Your task to perform on an android device: Search for hotels in Seattle Image 0: 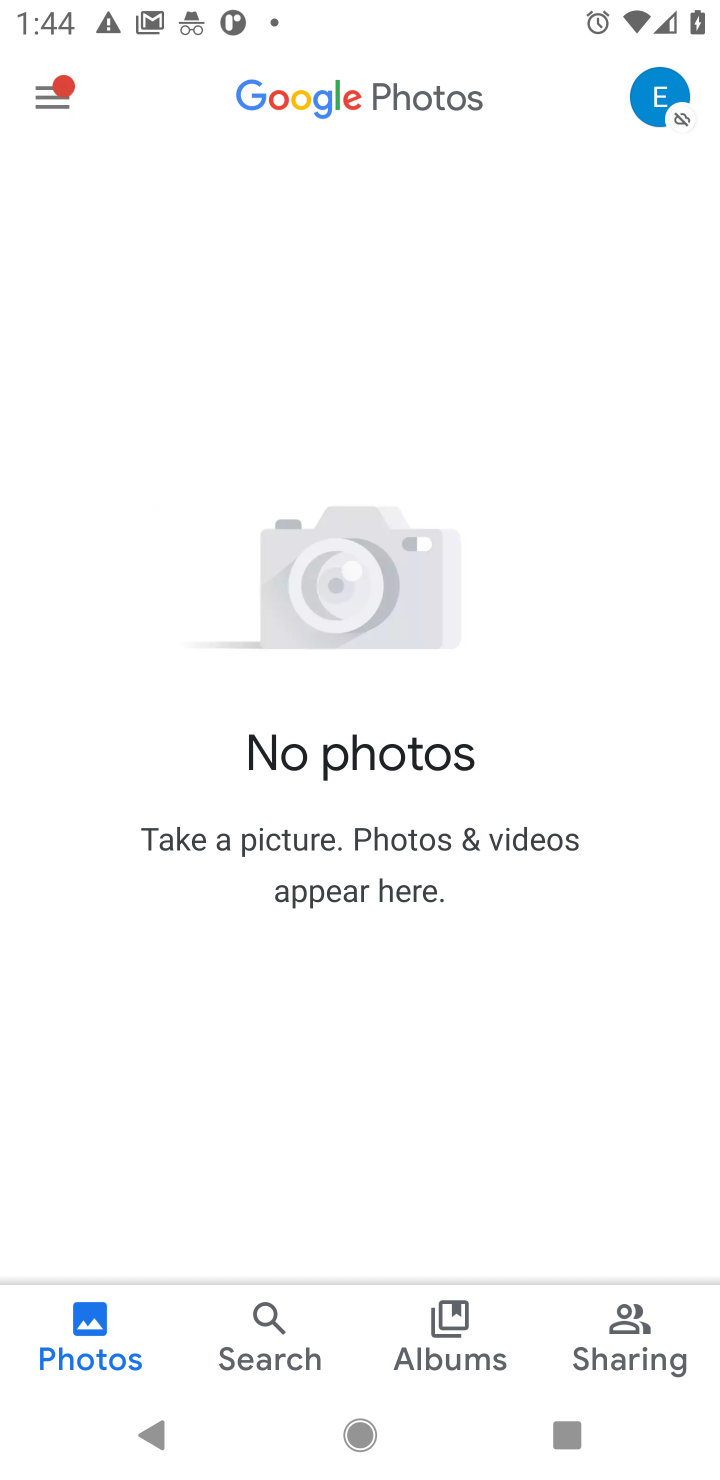
Step 0: press home button
Your task to perform on an android device: Search for hotels in Seattle Image 1: 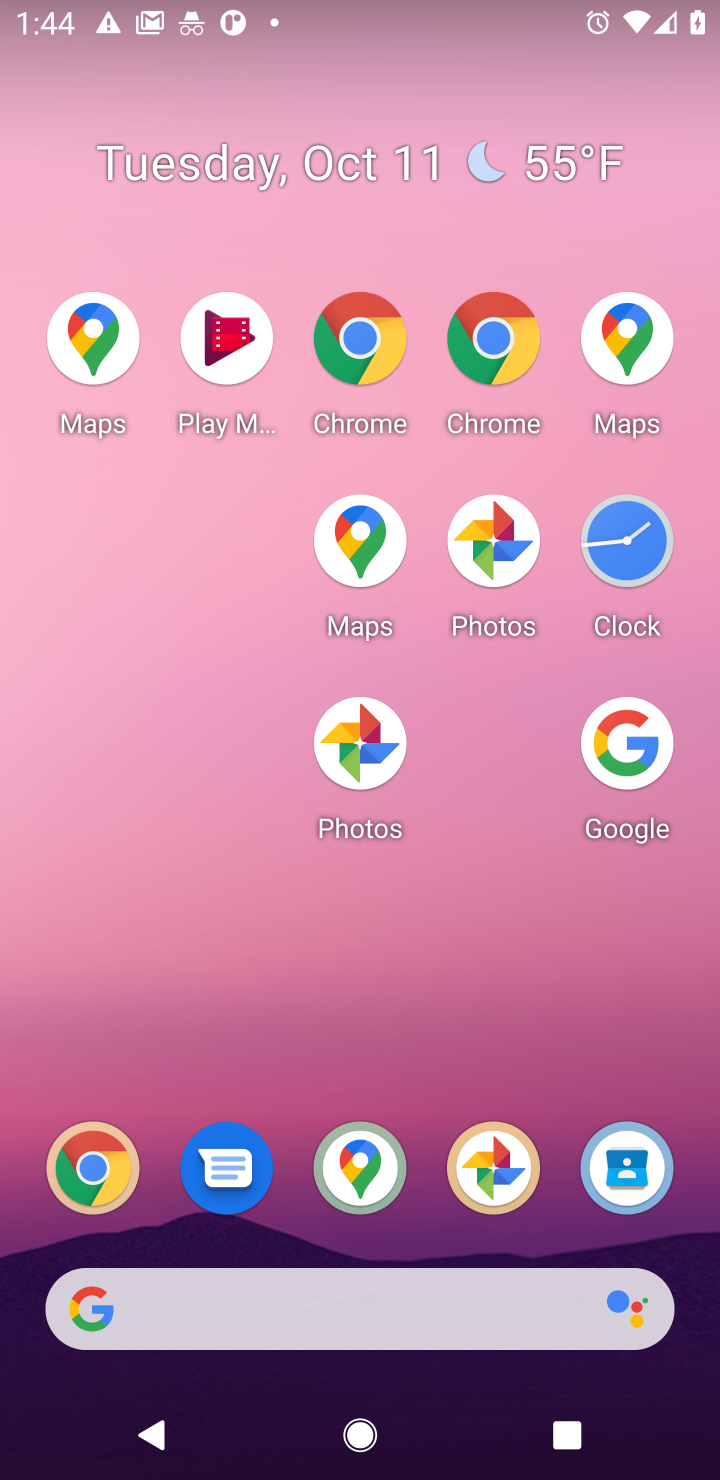
Step 1: drag from (404, 1308) to (469, 311)
Your task to perform on an android device: Search for hotels in Seattle Image 2: 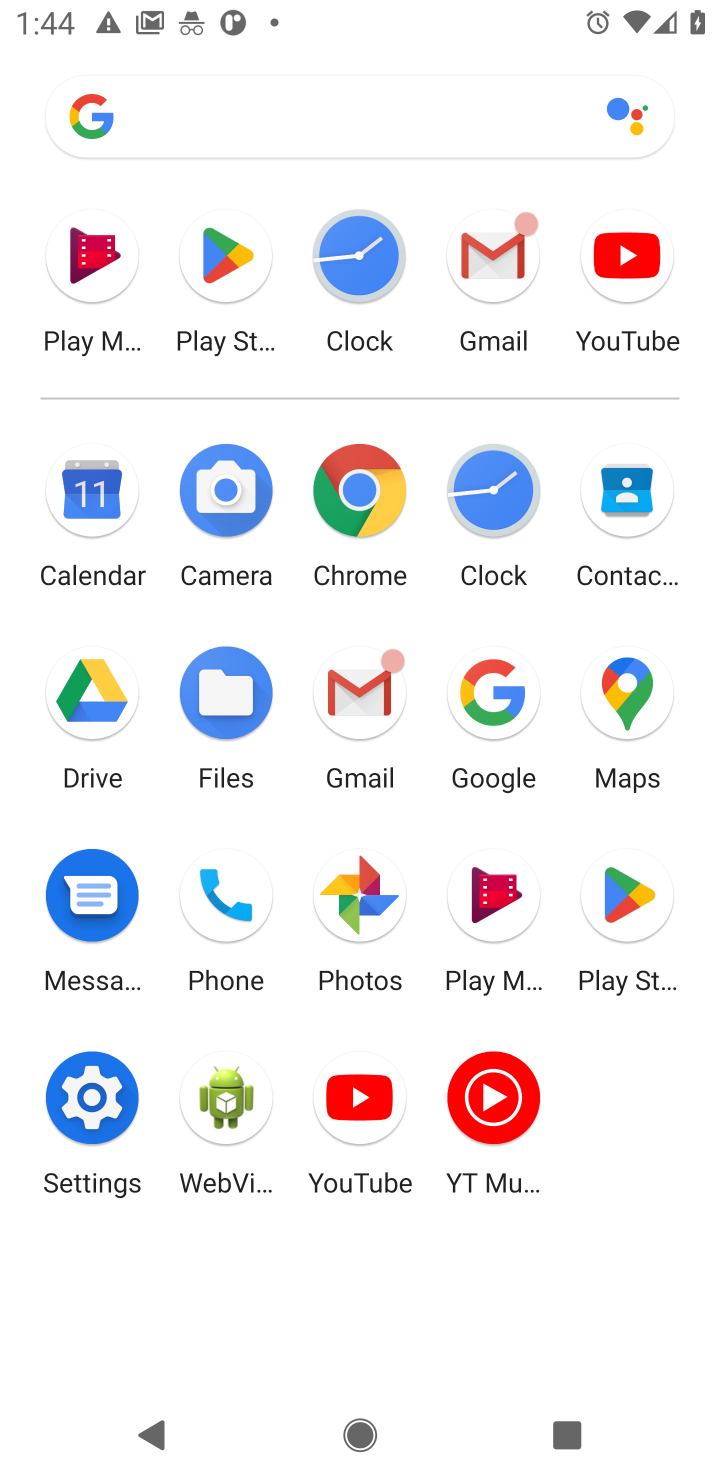
Step 2: click (509, 717)
Your task to perform on an android device: Search for hotels in Seattle Image 3: 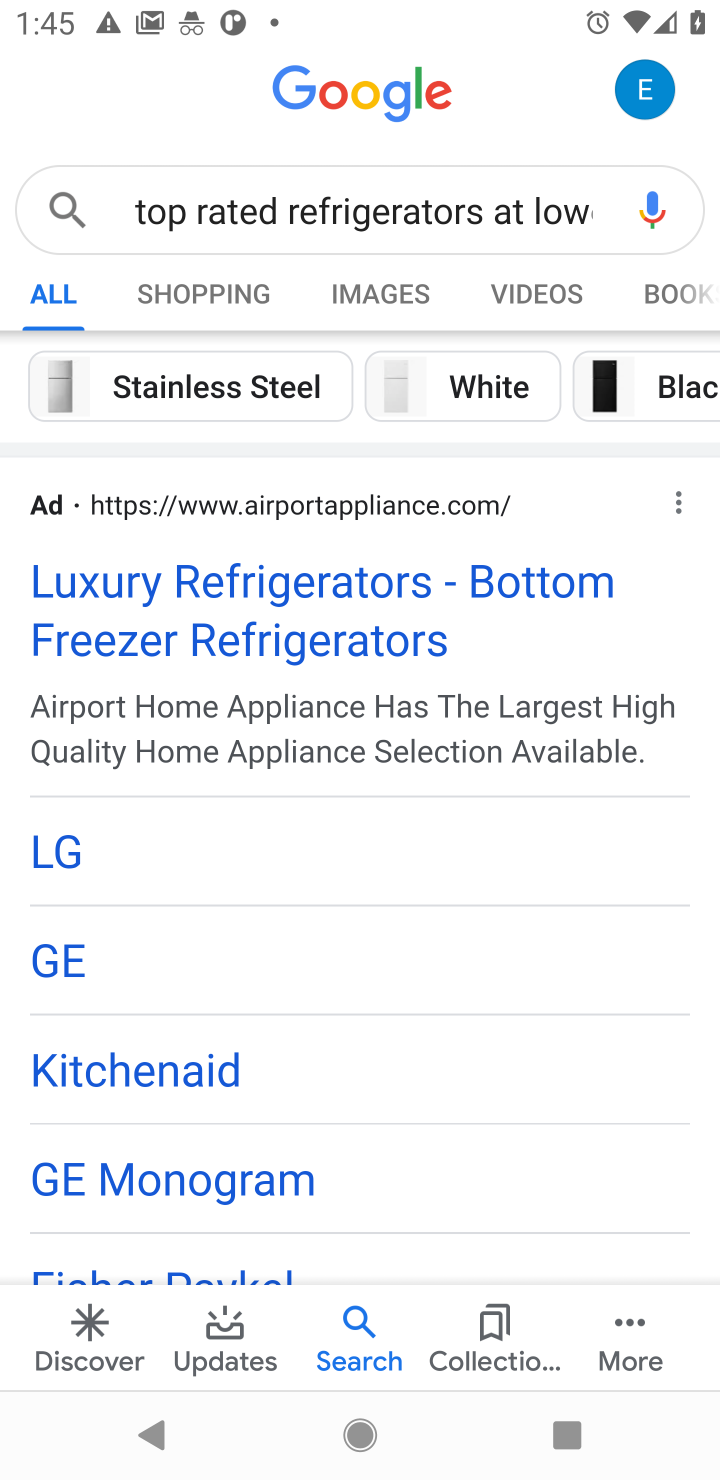
Step 3: click (518, 221)
Your task to perform on an android device: Search for hotels in Seattle Image 4: 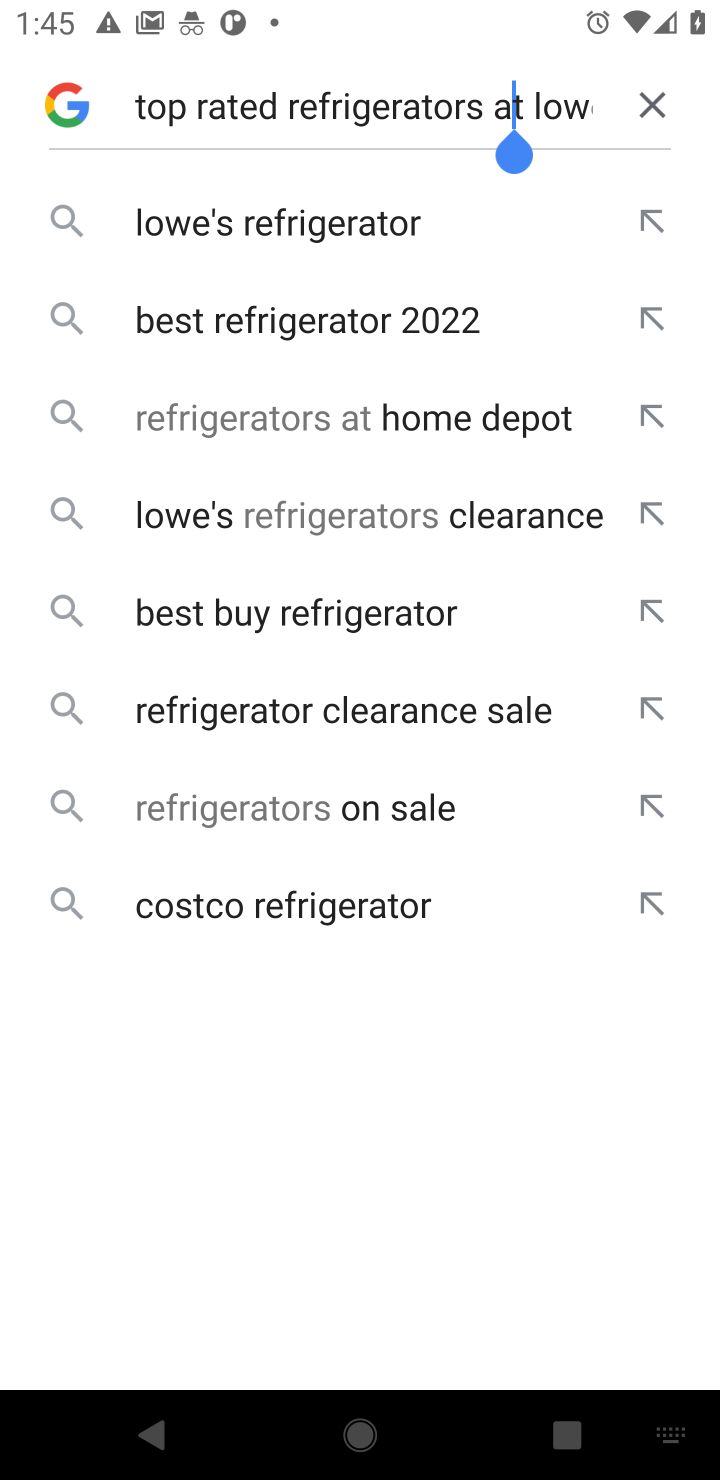
Step 4: click (657, 97)
Your task to perform on an android device: Search for hotels in Seattle Image 5: 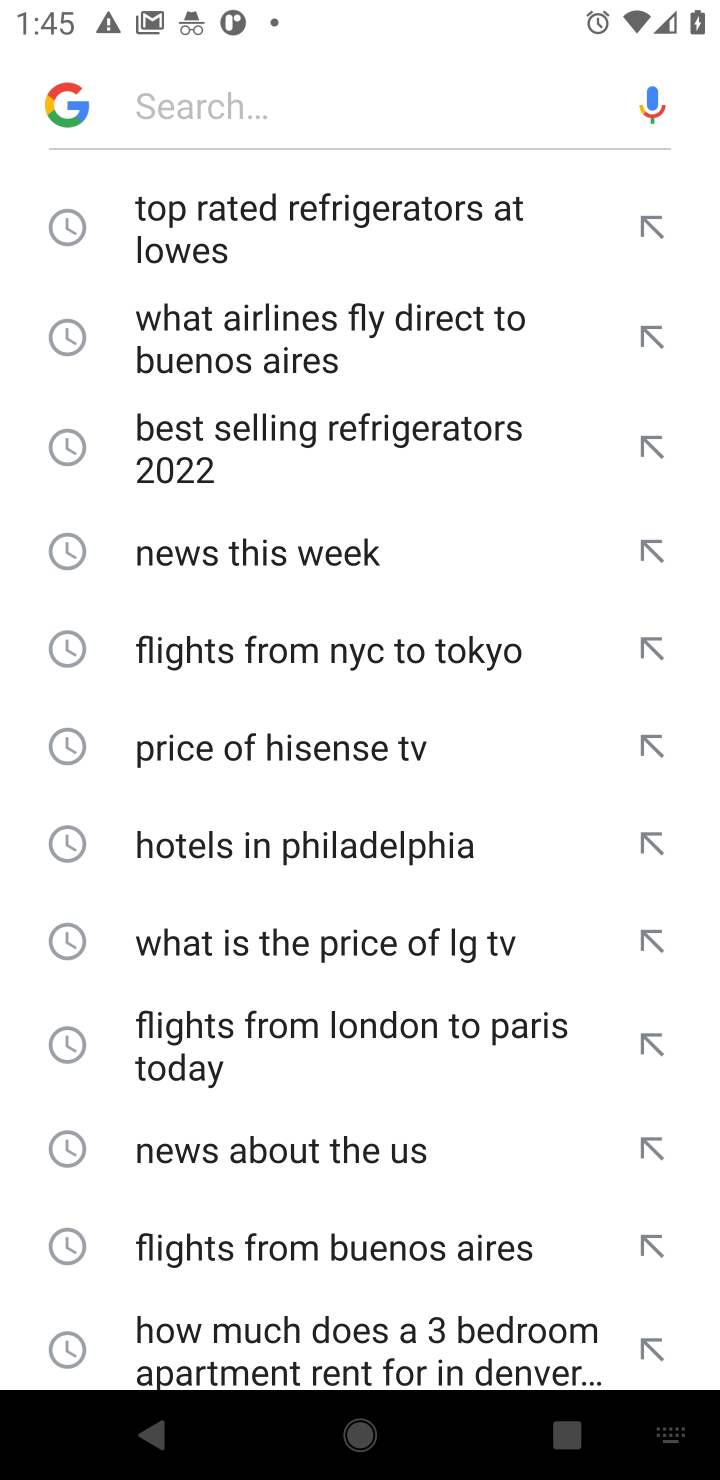
Step 5: type "hotels in Seattle"
Your task to perform on an android device: Search for hotels in Seattle Image 6: 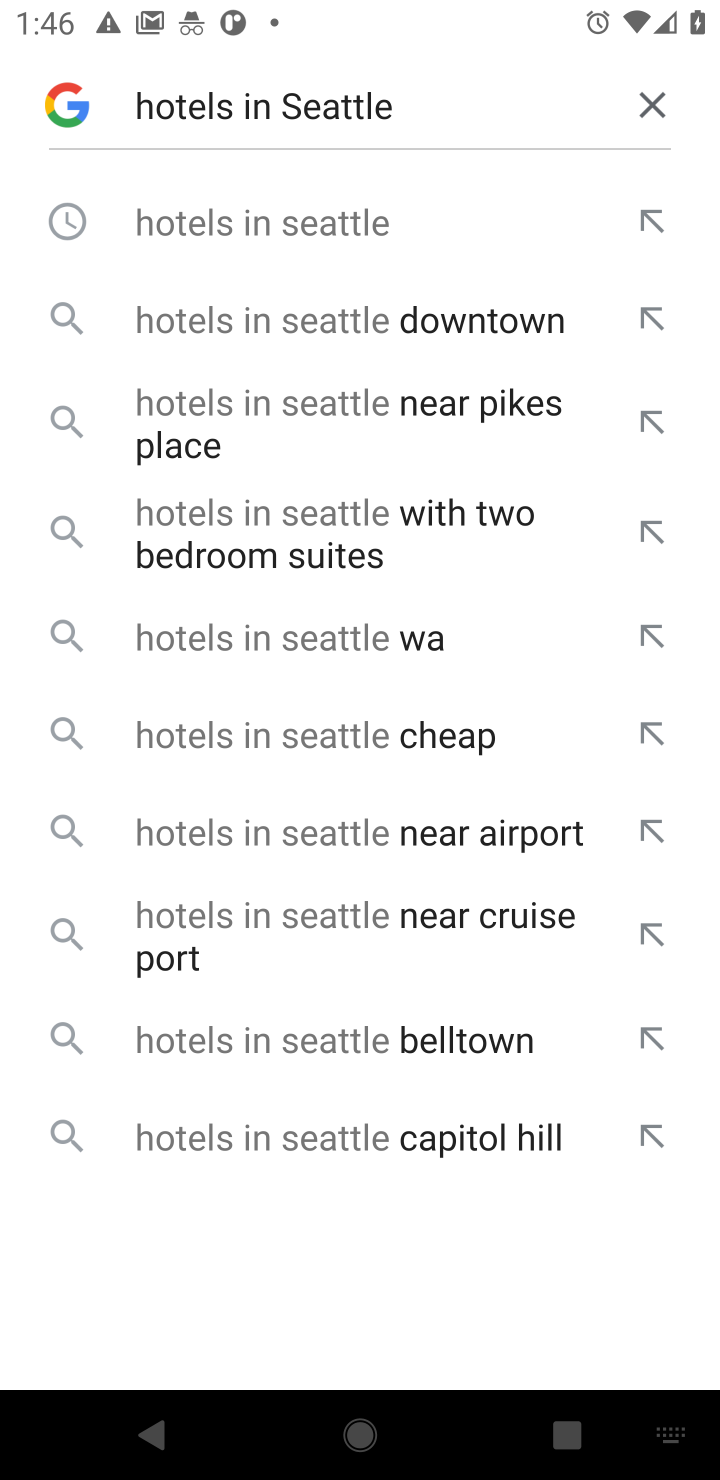
Step 6: click (408, 242)
Your task to perform on an android device: Search for hotels in Seattle Image 7: 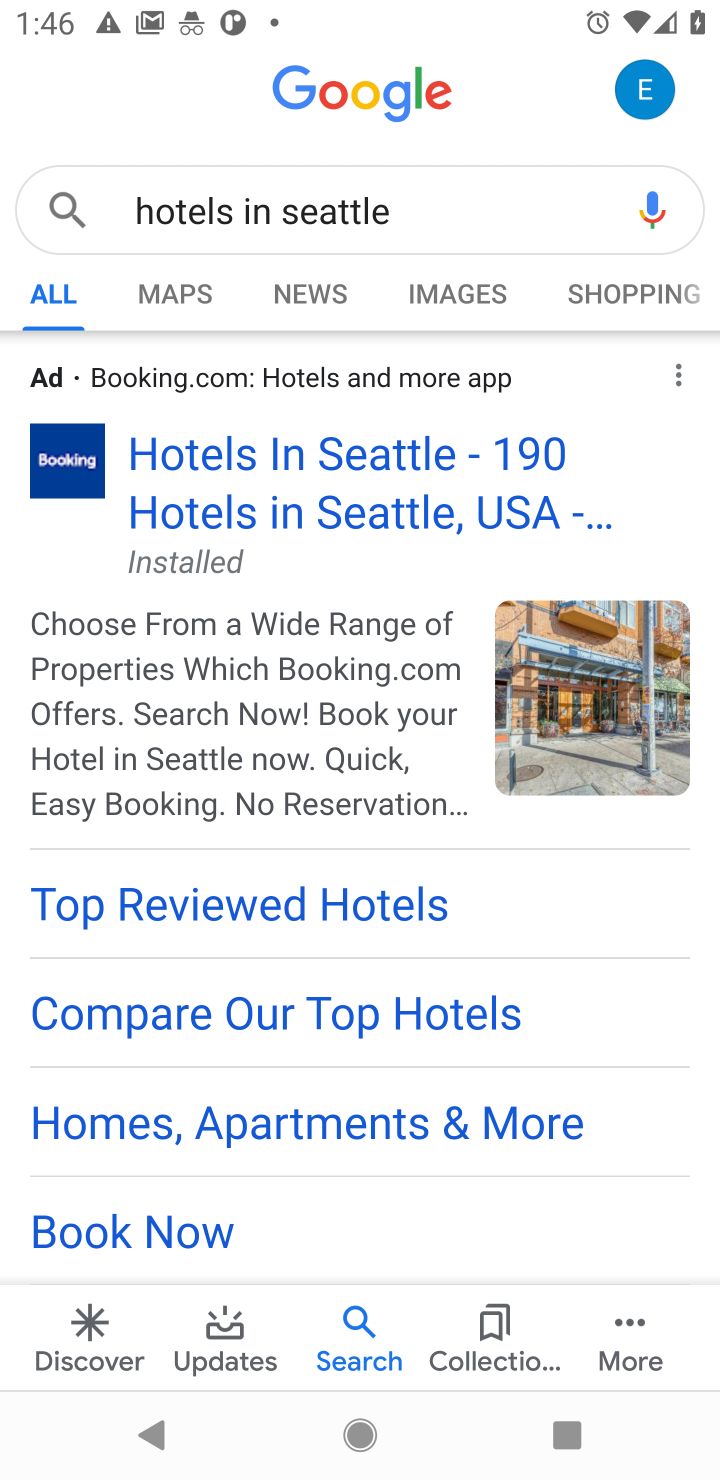
Step 7: task complete